Your task to perform on an android device: toggle pop-ups in chrome Image 0: 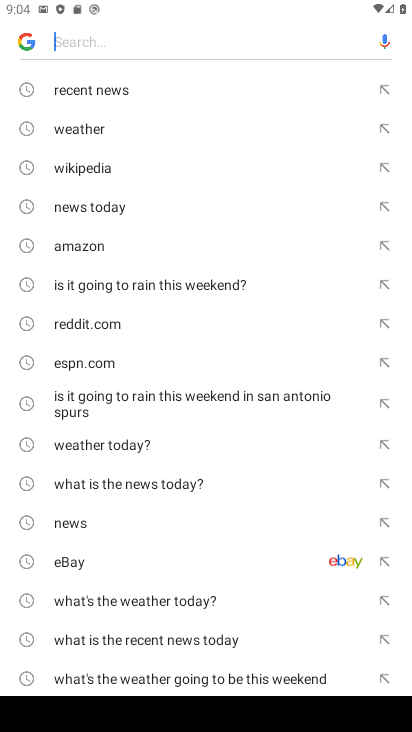
Step 0: press home button
Your task to perform on an android device: toggle pop-ups in chrome Image 1: 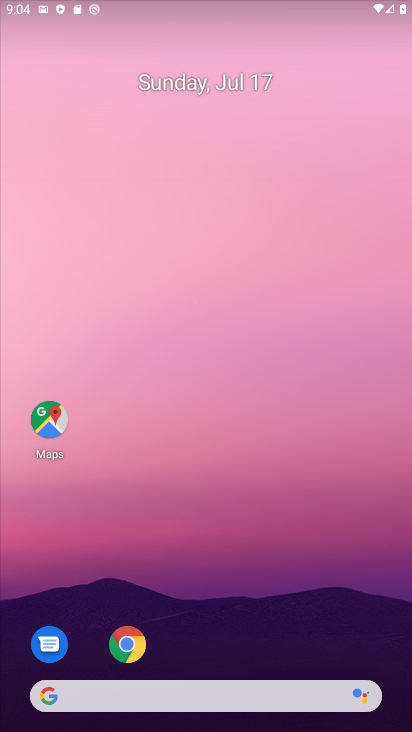
Step 1: drag from (184, 659) to (332, 22)
Your task to perform on an android device: toggle pop-ups in chrome Image 2: 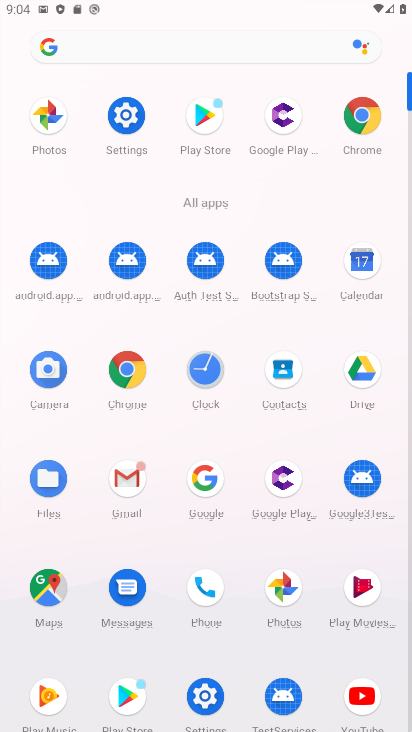
Step 2: drag from (116, 399) to (160, 399)
Your task to perform on an android device: toggle pop-ups in chrome Image 3: 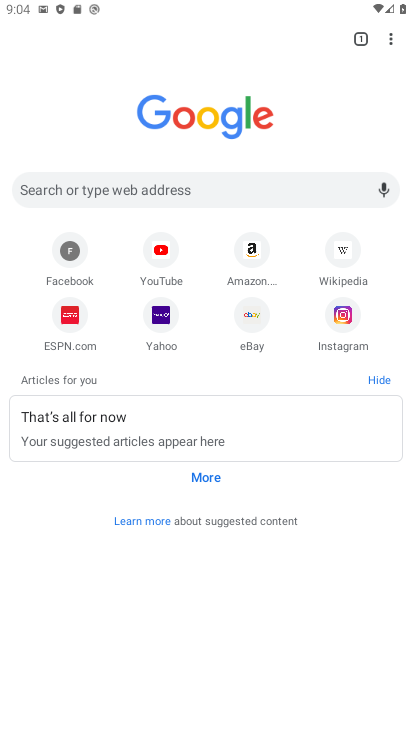
Step 3: click (391, 34)
Your task to perform on an android device: toggle pop-ups in chrome Image 4: 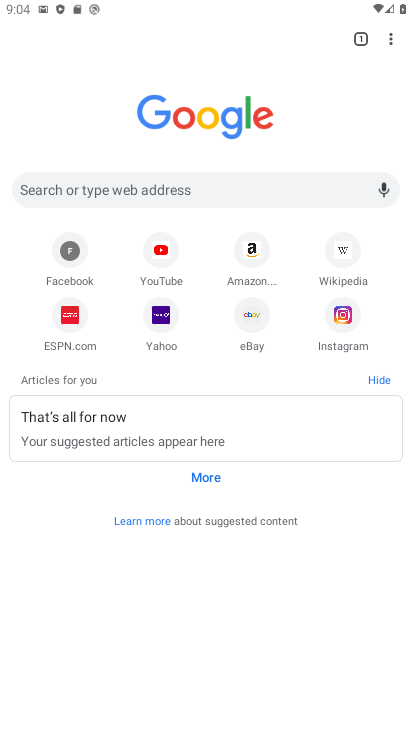
Step 4: click (390, 41)
Your task to perform on an android device: toggle pop-ups in chrome Image 5: 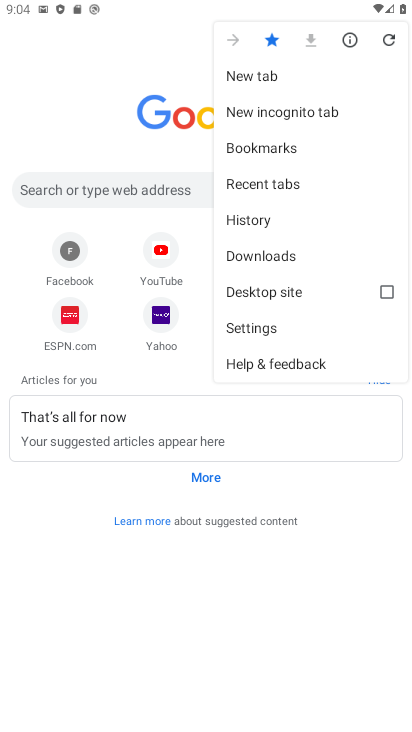
Step 5: click (257, 321)
Your task to perform on an android device: toggle pop-ups in chrome Image 6: 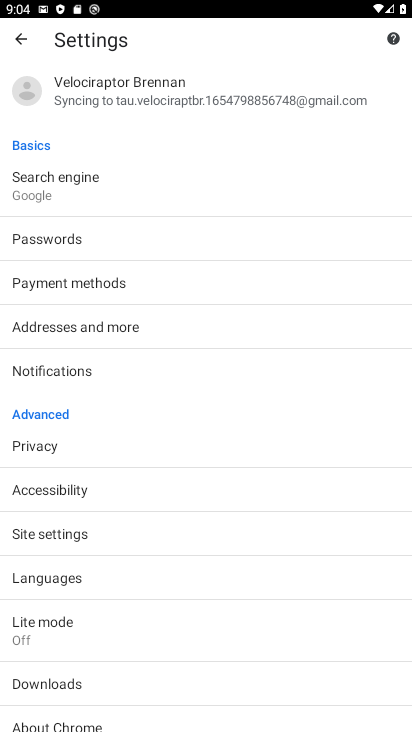
Step 6: click (26, 530)
Your task to perform on an android device: toggle pop-ups in chrome Image 7: 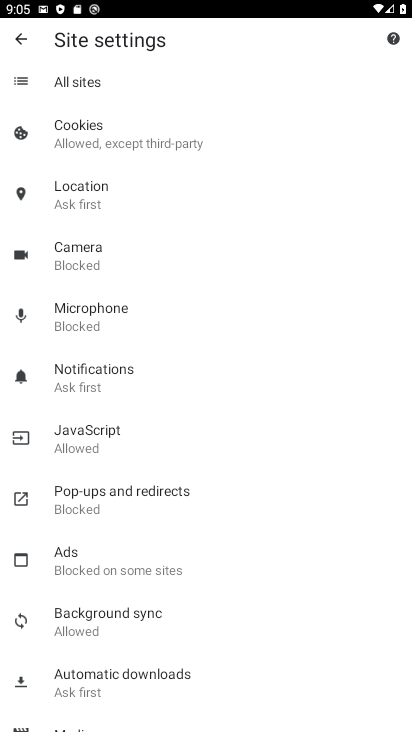
Step 7: click (103, 501)
Your task to perform on an android device: toggle pop-ups in chrome Image 8: 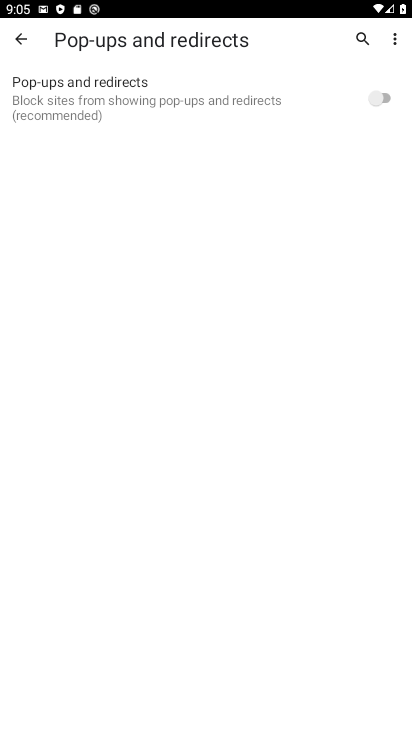
Step 8: click (380, 107)
Your task to perform on an android device: toggle pop-ups in chrome Image 9: 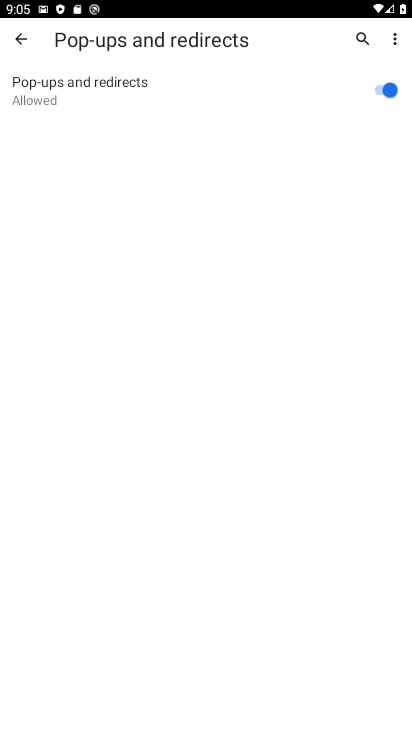
Step 9: task complete